Your task to perform on an android device: turn off smart reply in the gmail app Image 0: 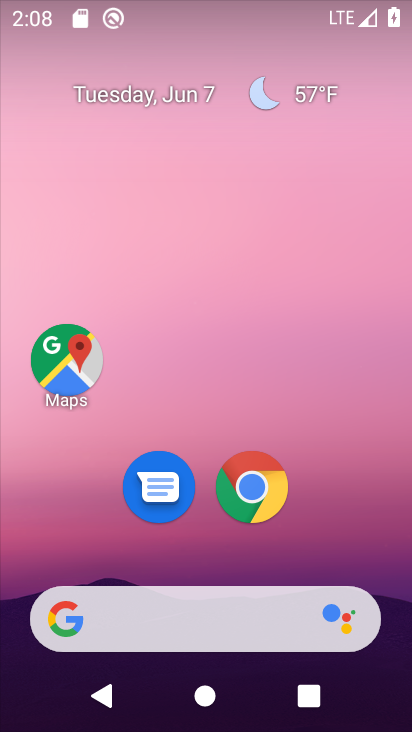
Step 0: drag from (214, 579) to (155, 41)
Your task to perform on an android device: turn off smart reply in the gmail app Image 1: 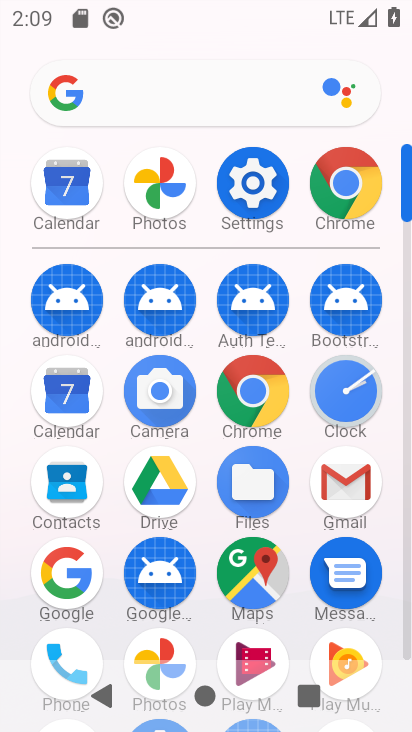
Step 1: click (350, 501)
Your task to perform on an android device: turn off smart reply in the gmail app Image 2: 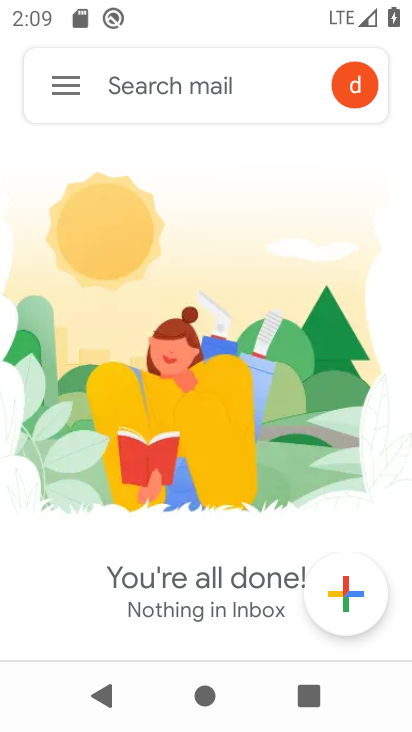
Step 2: click (55, 83)
Your task to perform on an android device: turn off smart reply in the gmail app Image 3: 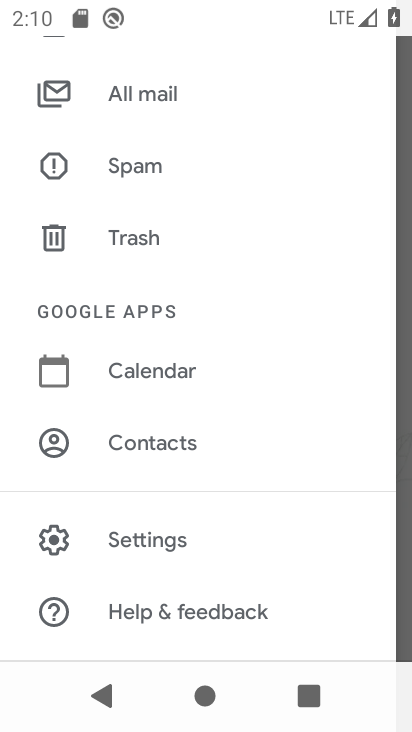
Step 3: click (158, 542)
Your task to perform on an android device: turn off smart reply in the gmail app Image 4: 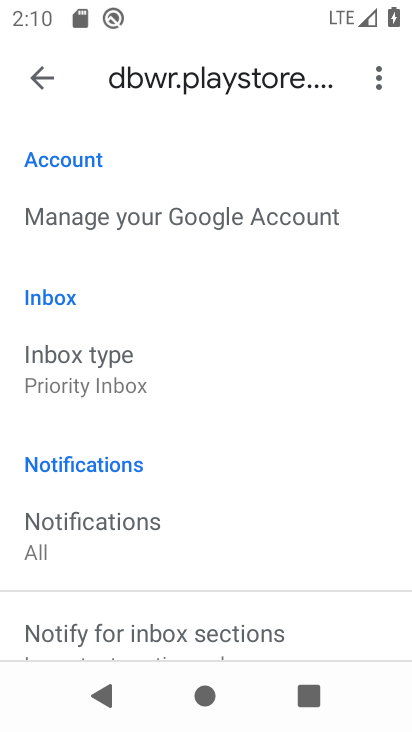
Step 4: drag from (177, 614) to (155, 0)
Your task to perform on an android device: turn off smart reply in the gmail app Image 5: 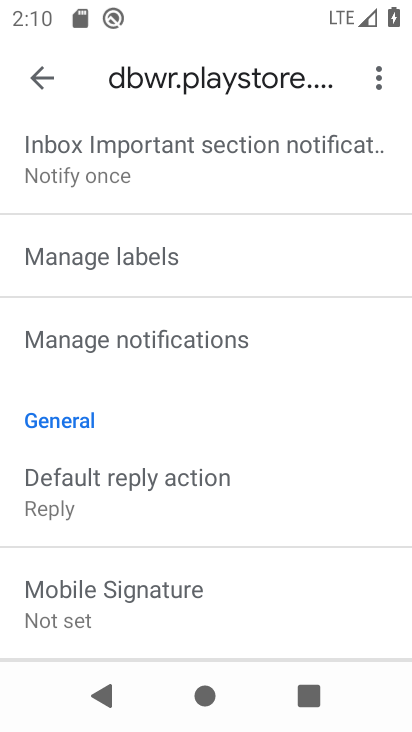
Step 5: drag from (118, 562) to (96, 1)
Your task to perform on an android device: turn off smart reply in the gmail app Image 6: 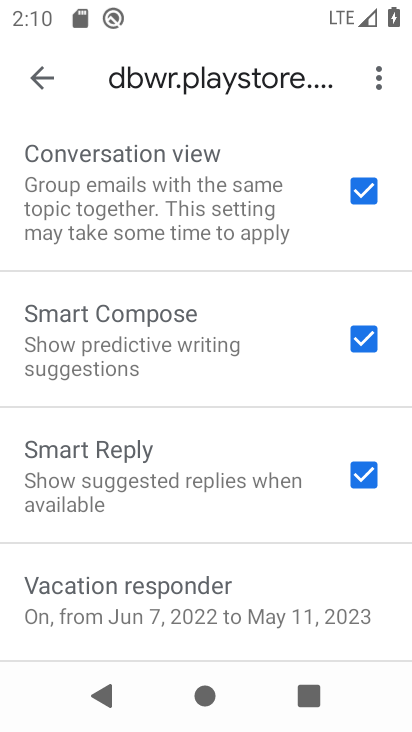
Step 6: click (184, 453)
Your task to perform on an android device: turn off smart reply in the gmail app Image 7: 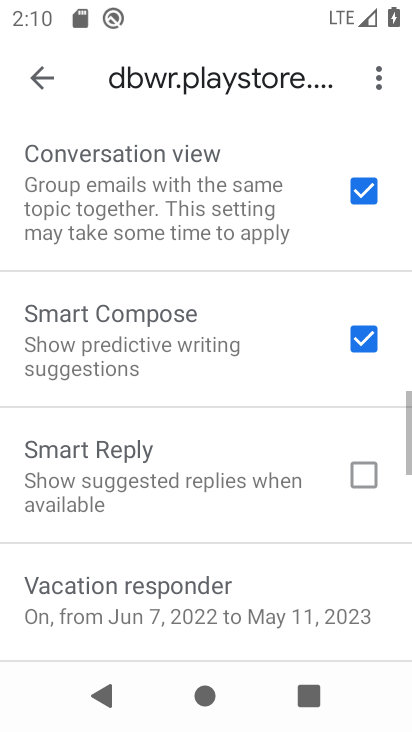
Step 7: task complete